Your task to perform on an android device: check storage Image 0: 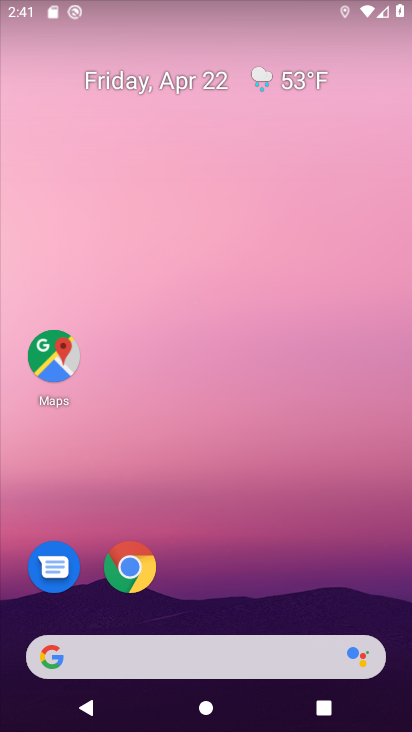
Step 0: drag from (331, 579) to (323, 74)
Your task to perform on an android device: check storage Image 1: 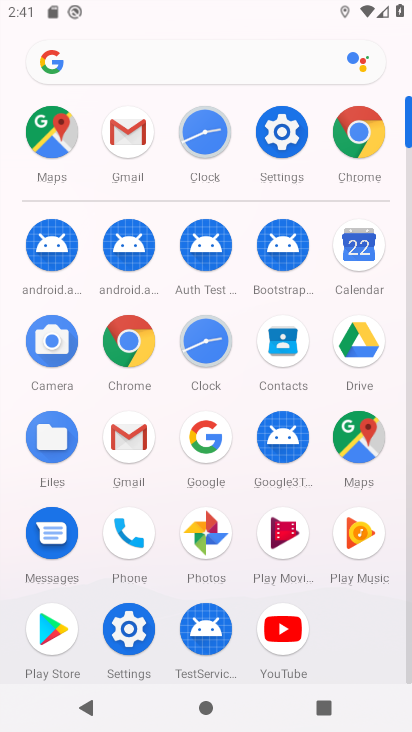
Step 1: click (290, 136)
Your task to perform on an android device: check storage Image 2: 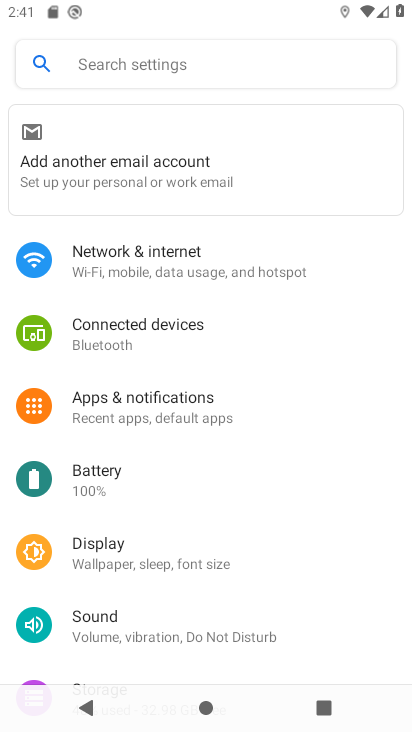
Step 2: drag from (245, 583) to (252, 157)
Your task to perform on an android device: check storage Image 3: 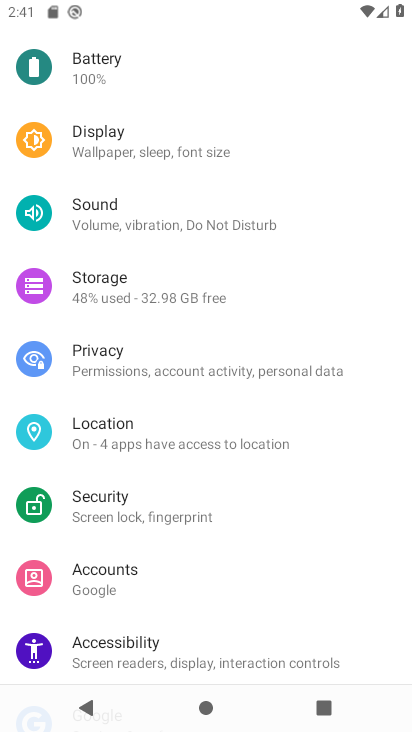
Step 3: click (196, 280)
Your task to perform on an android device: check storage Image 4: 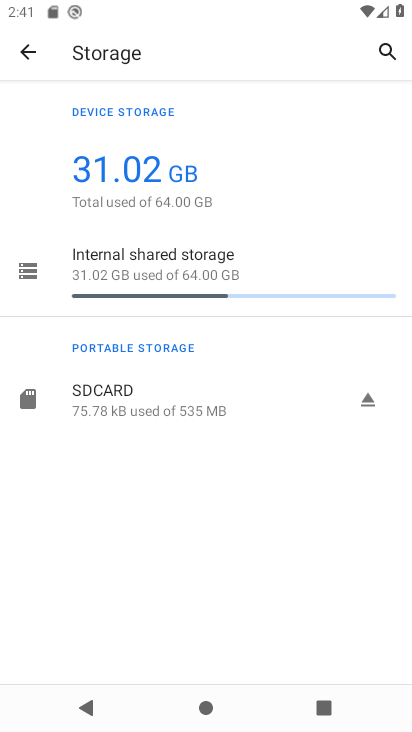
Step 4: task complete